Your task to perform on an android device: turn smart compose on in the gmail app Image 0: 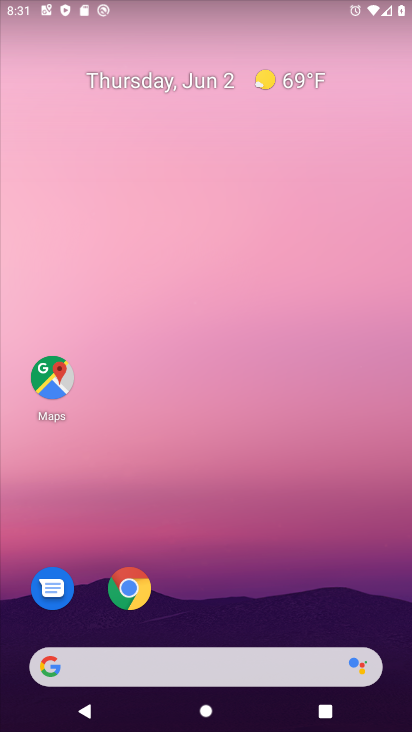
Step 0: drag from (219, 731) to (184, 64)
Your task to perform on an android device: turn smart compose on in the gmail app Image 1: 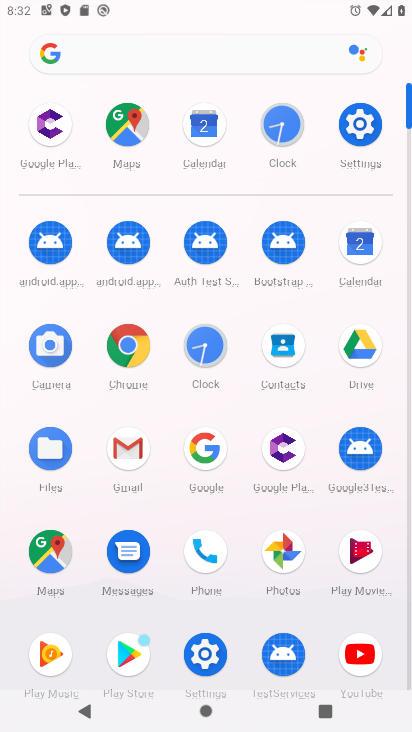
Step 1: click (130, 447)
Your task to perform on an android device: turn smart compose on in the gmail app Image 2: 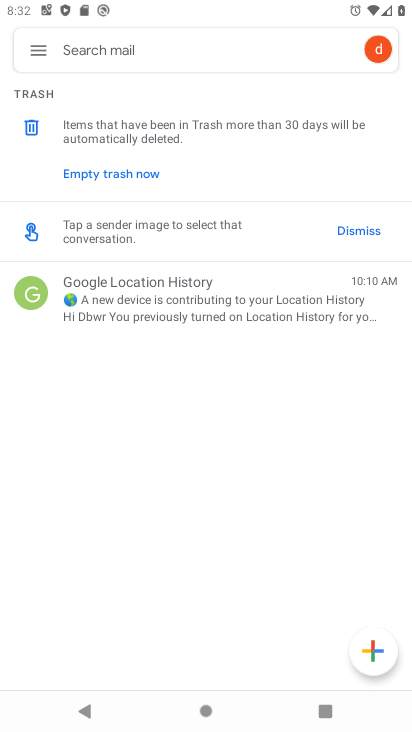
Step 2: click (35, 44)
Your task to perform on an android device: turn smart compose on in the gmail app Image 3: 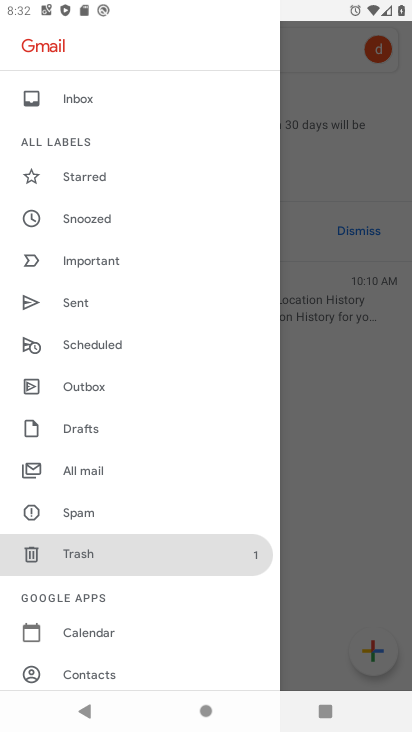
Step 3: drag from (95, 658) to (86, 230)
Your task to perform on an android device: turn smart compose on in the gmail app Image 4: 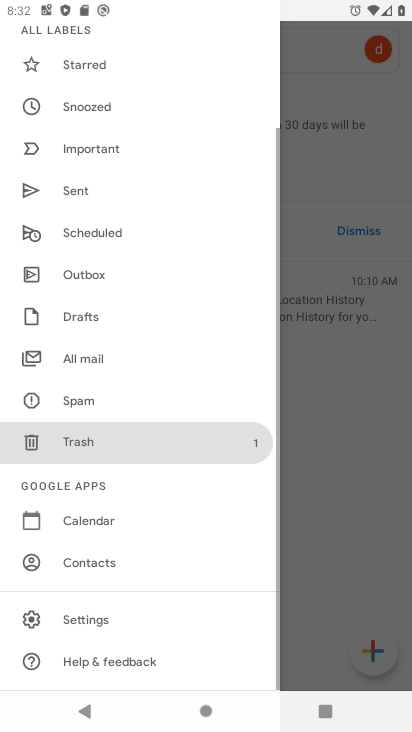
Step 4: click (99, 619)
Your task to perform on an android device: turn smart compose on in the gmail app Image 5: 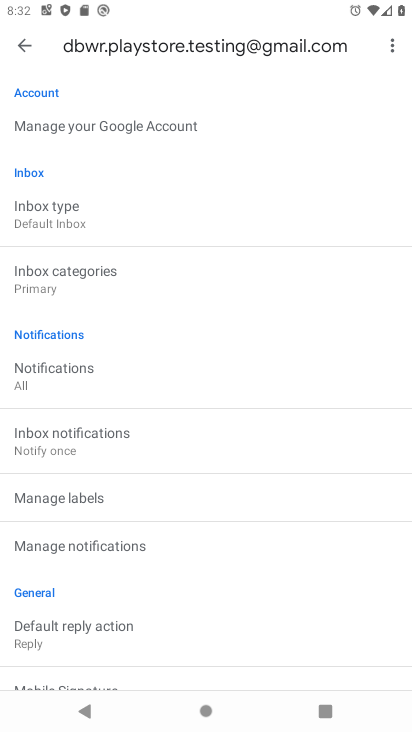
Step 5: task complete